Your task to perform on an android device: toggle priority inbox in the gmail app Image 0: 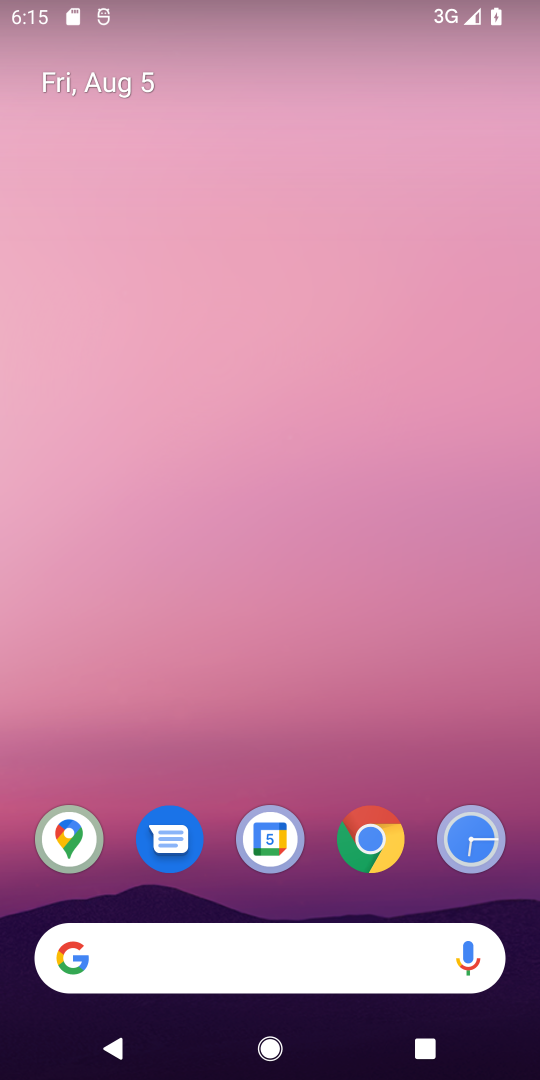
Step 0: click (258, 762)
Your task to perform on an android device: toggle priority inbox in the gmail app Image 1: 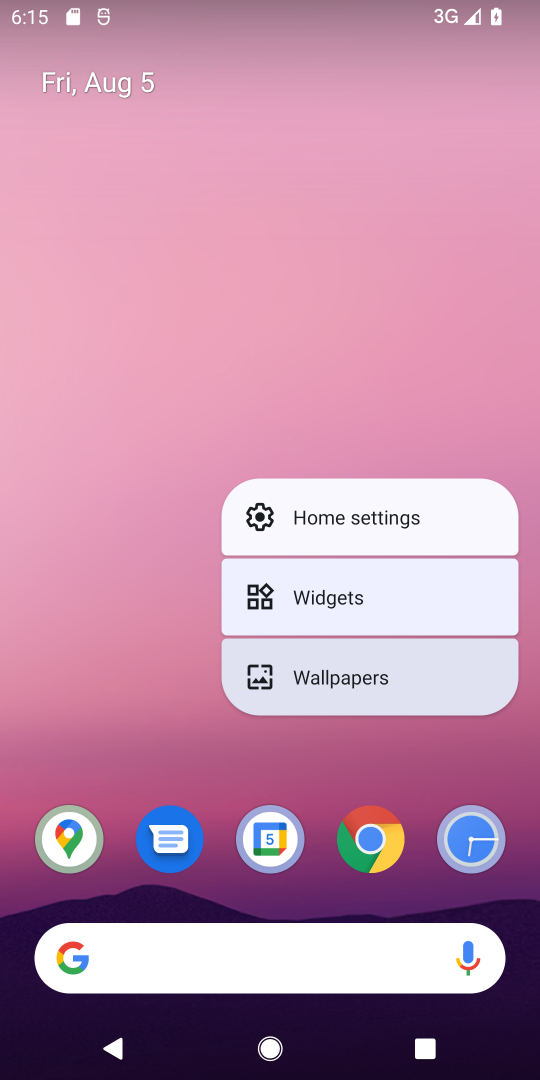
Step 1: click (258, 762)
Your task to perform on an android device: toggle priority inbox in the gmail app Image 2: 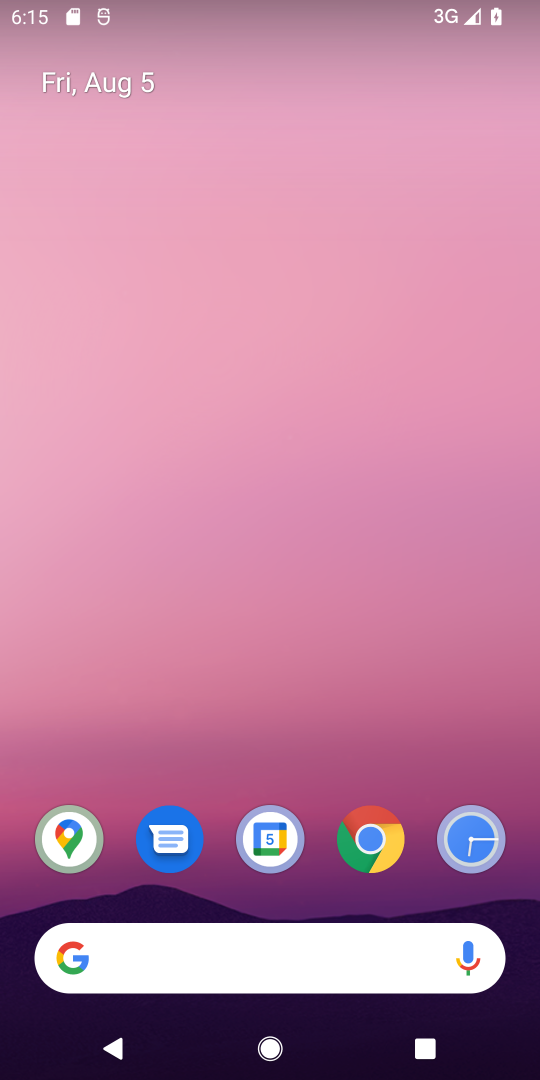
Step 2: drag from (284, 746) to (274, 220)
Your task to perform on an android device: toggle priority inbox in the gmail app Image 3: 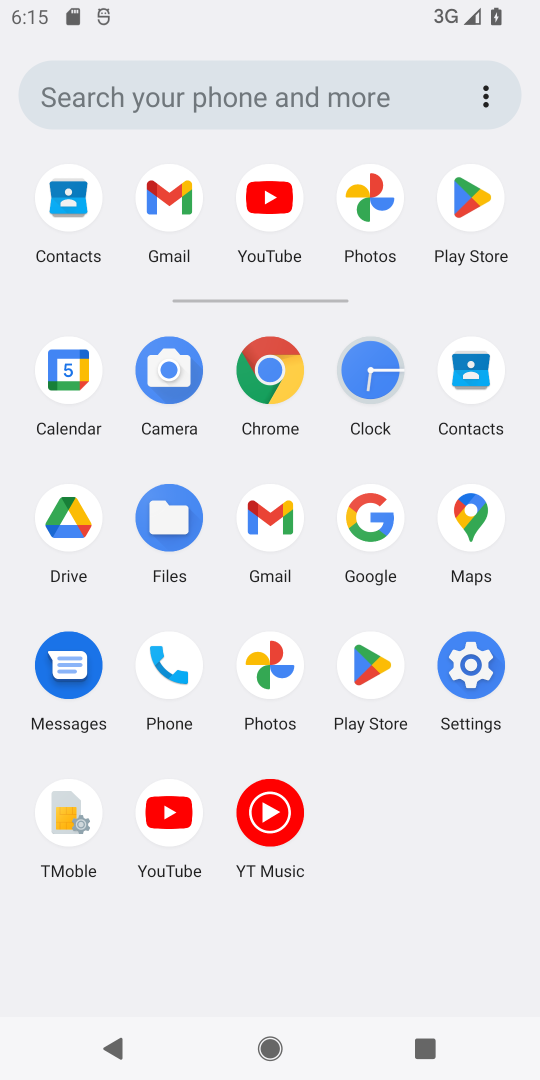
Step 3: click (155, 216)
Your task to perform on an android device: toggle priority inbox in the gmail app Image 4: 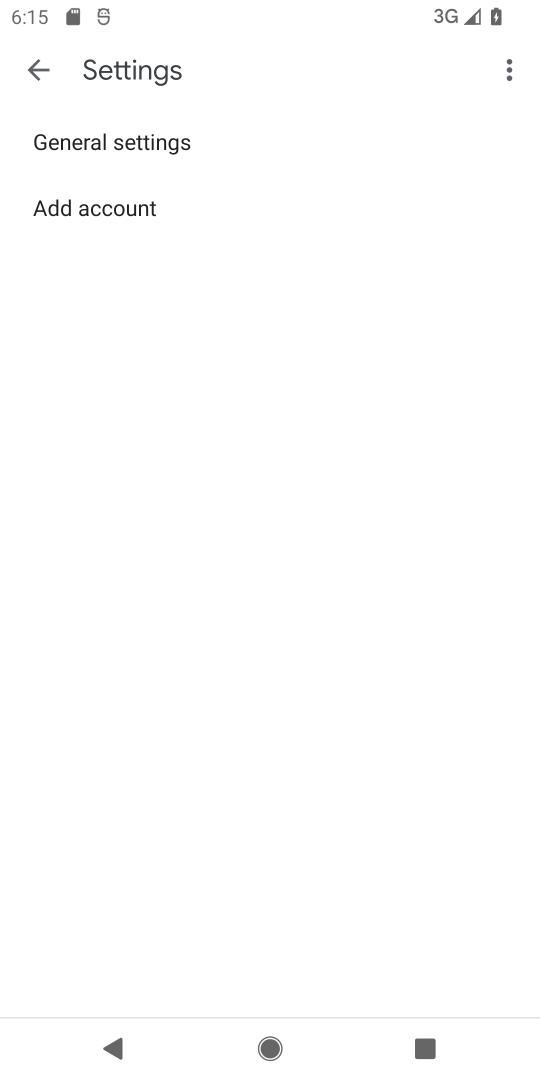
Step 4: click (31, 63)
Your task to perform on an android device: toggle priority inbox in the gmail app Image 5: 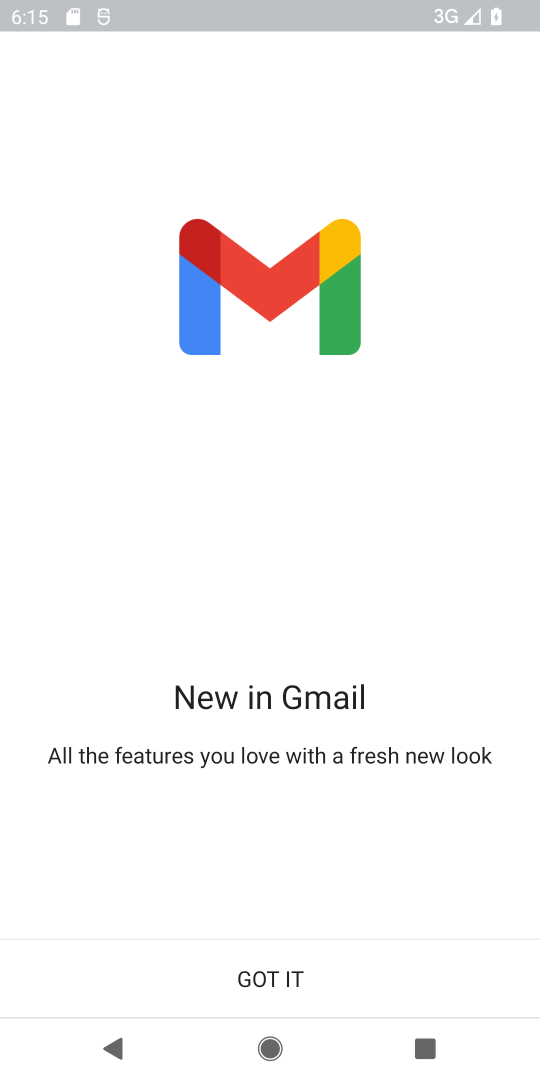
Step 5: click (249, 982)
Your task to perform on an android device: toggle priority inbox in the gmail app Image 6: 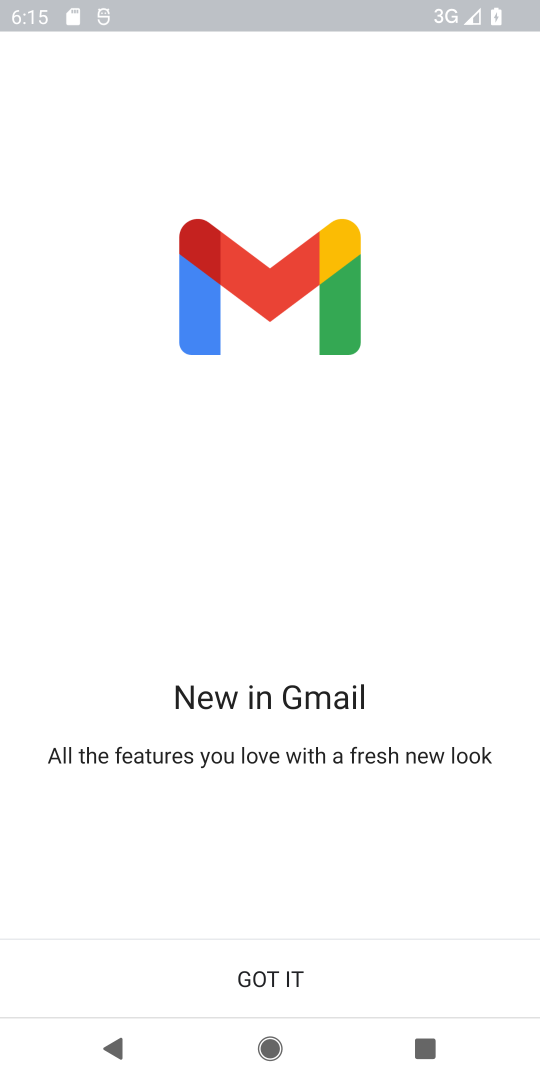
Step 6: click (287, 984)
Your task to perform on an android device: toggle priority inbox in the gmail app Image 7: 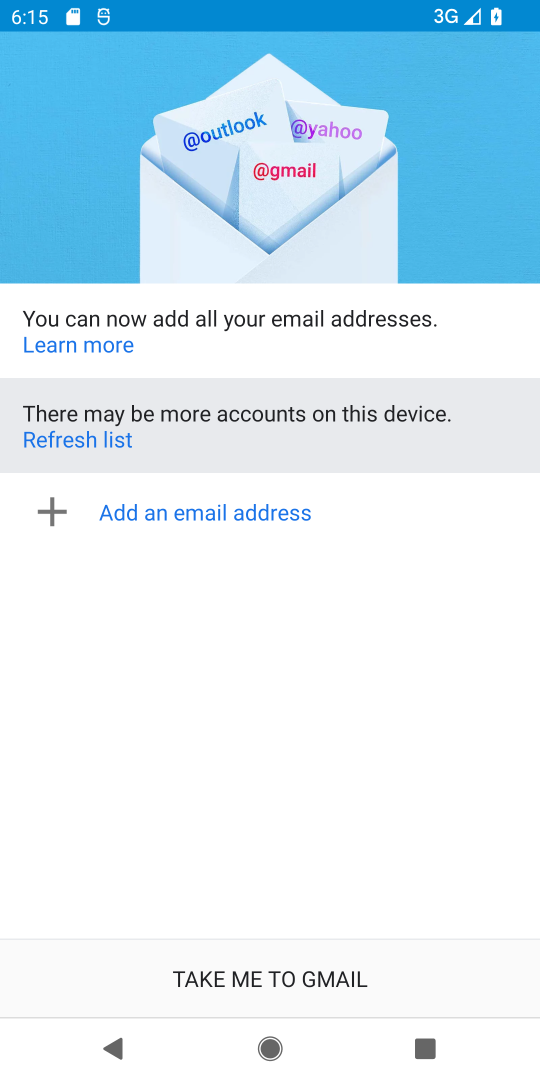
Step 7: task complete